Your task to perform on an android device: Go to Yahoo.com Image 0: 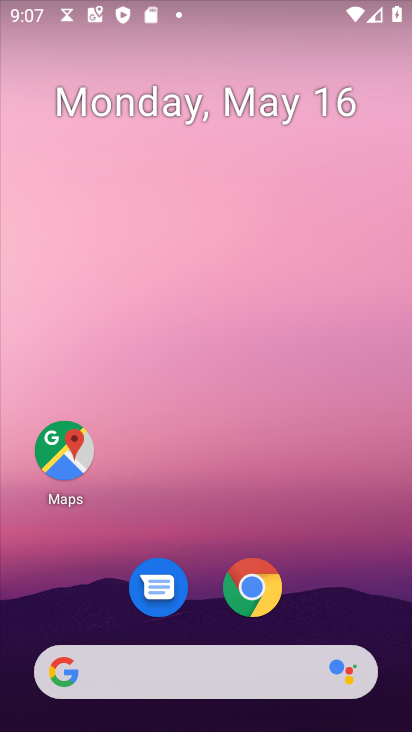
Step 0: click (256, 594)
Your task to perform on an android device: Go to Yahoo.com Image 1: 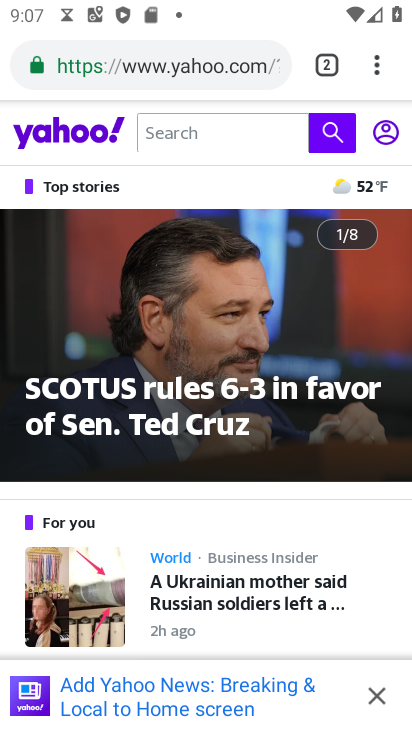
Step 1: task complete